Your task to perform on an android device: change the clock display to digital Image 0: 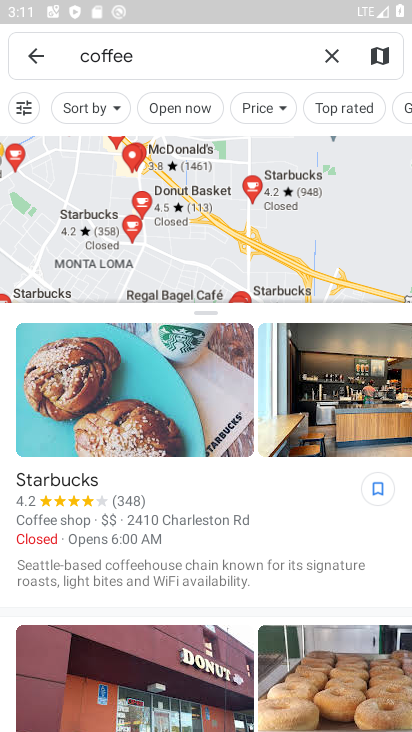
Step 0: press home button
Your task to perform on an android device: change the clock display to digital Image 1: 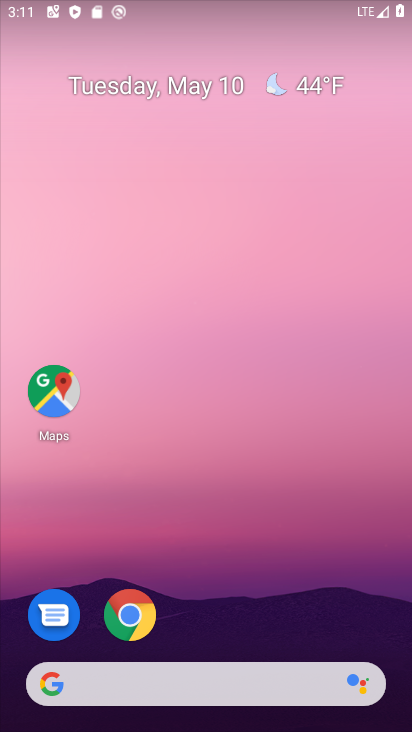
Step 1: drag from (314, 621) to (339, 29)
Your task to perform on an android device: change the clock display to digital Image 2: 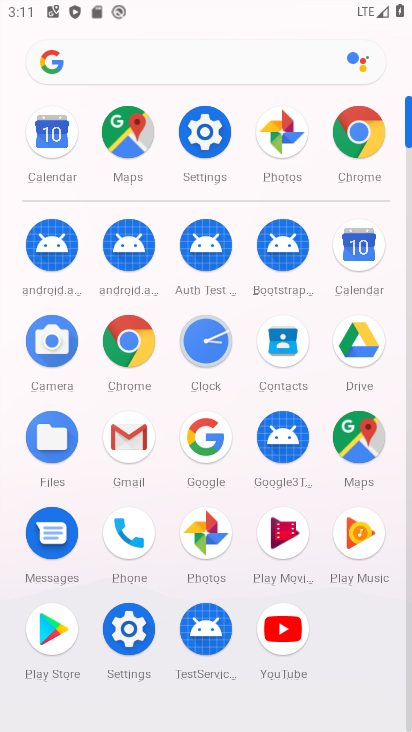
Step 2: click (198, 351)
Your task to perform on an android device: change the clock display to digital Image 3: 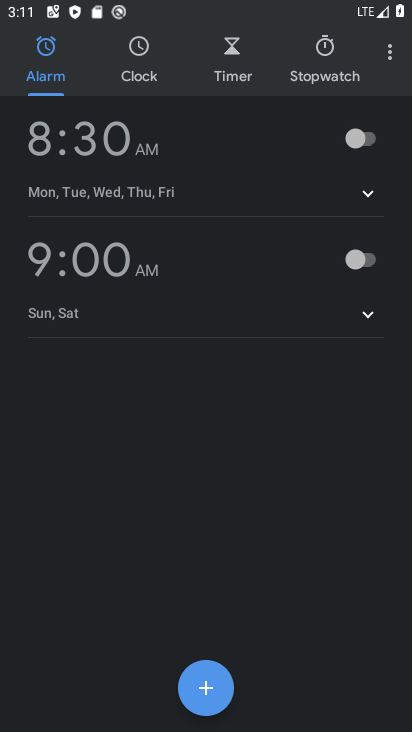
Step 3: click (396, 49)
Your task to perform on an android device: change the clock display to digital Image 4: 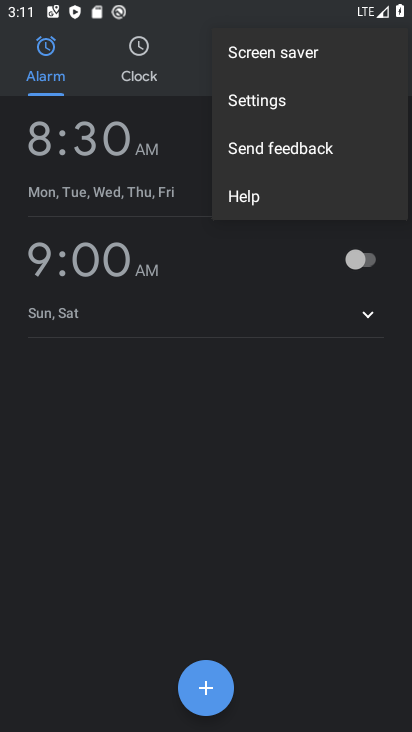
Step 4: click (255, 104)
Your task to perform on an android device: change the clock display to digital Image 5: 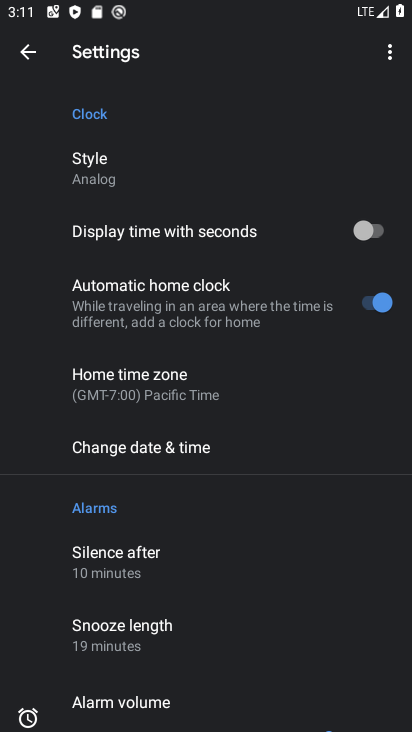
Step 5: drag from (225, 586) to (236, 629)
Your task to perform on an android device: change the clock display to digital Image 6: 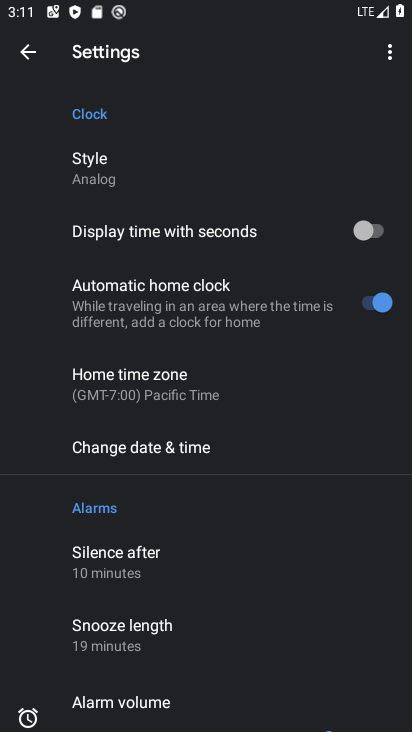
Step 6: click (97, 170)
Your task to perform on an android device: change the clock display to digital Image 7: 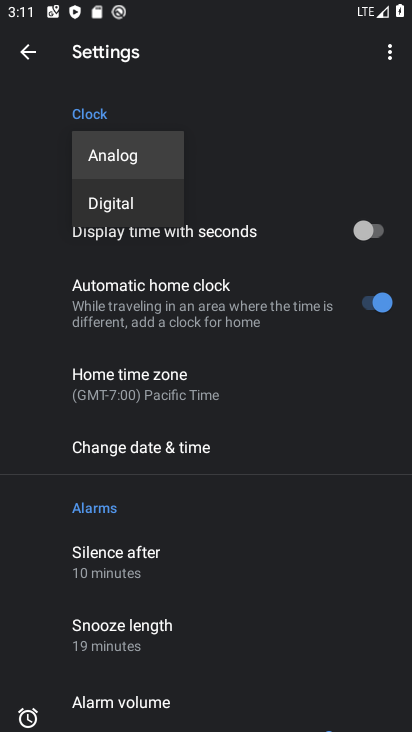
Step 7: click (142, 212)
Your task to perform on an android device: change the clock display to digital Image 8: 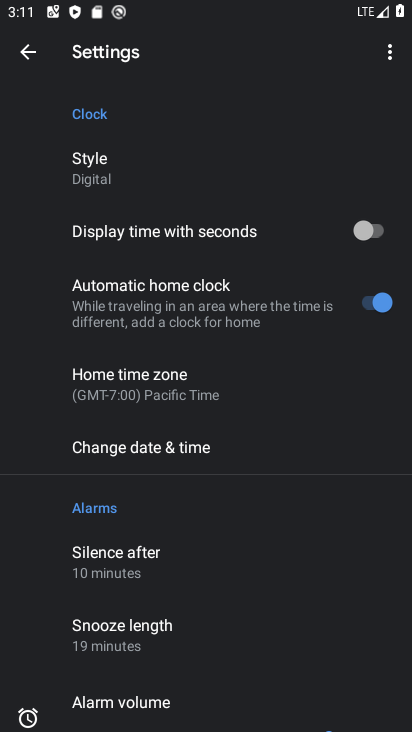
Step 8: task complete